Your task to perform on an android device: turn off data saver in the chrome app Image 0: 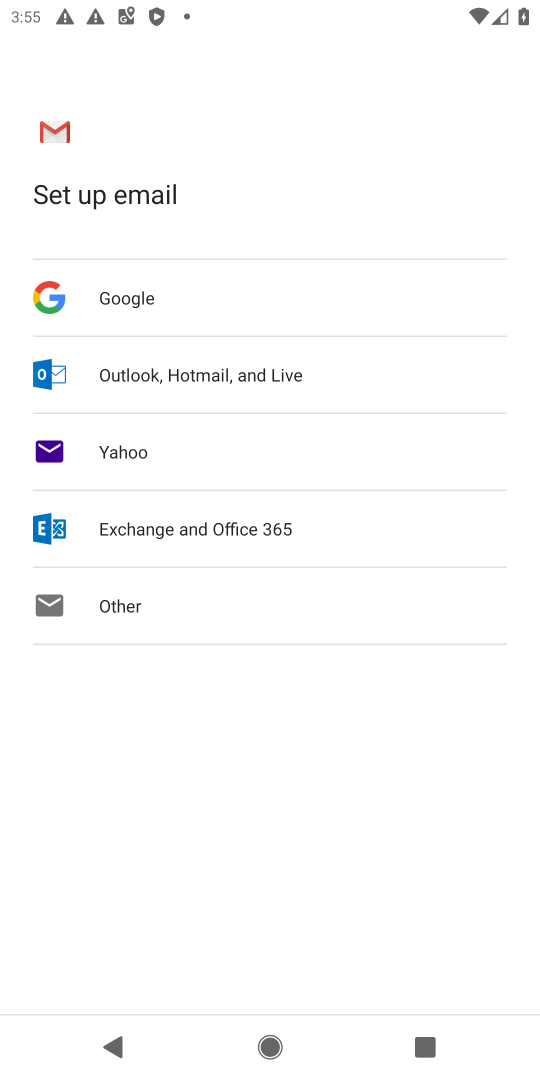
Step 0: press home button
Your task to perform on an android device: turn off data saver in the chrome app Image 1: 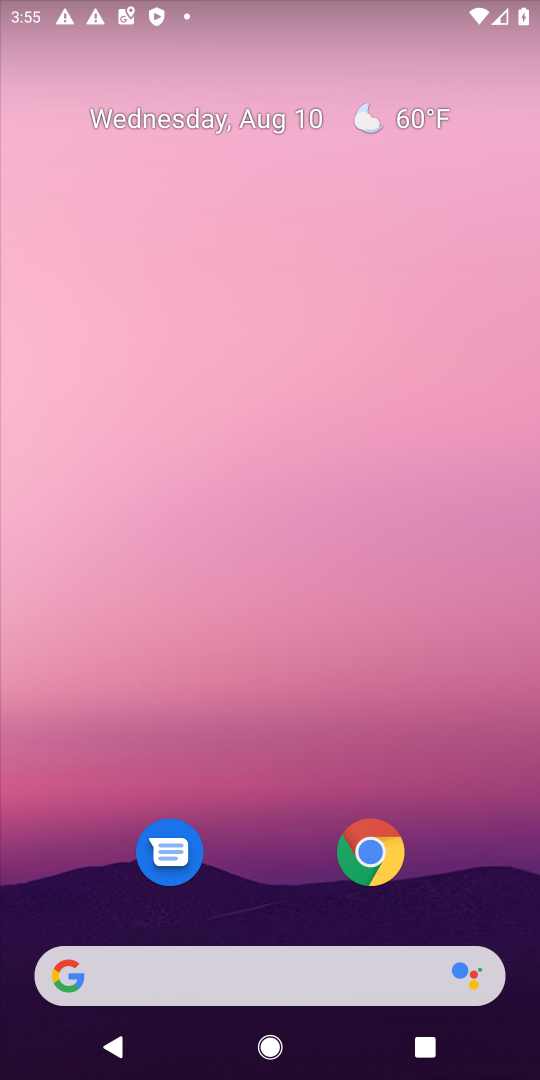
Step 1: drag from (271, 818) to (350, 133)
Your task to perform on an android device: turn off data saver in the chrome app Image 2: 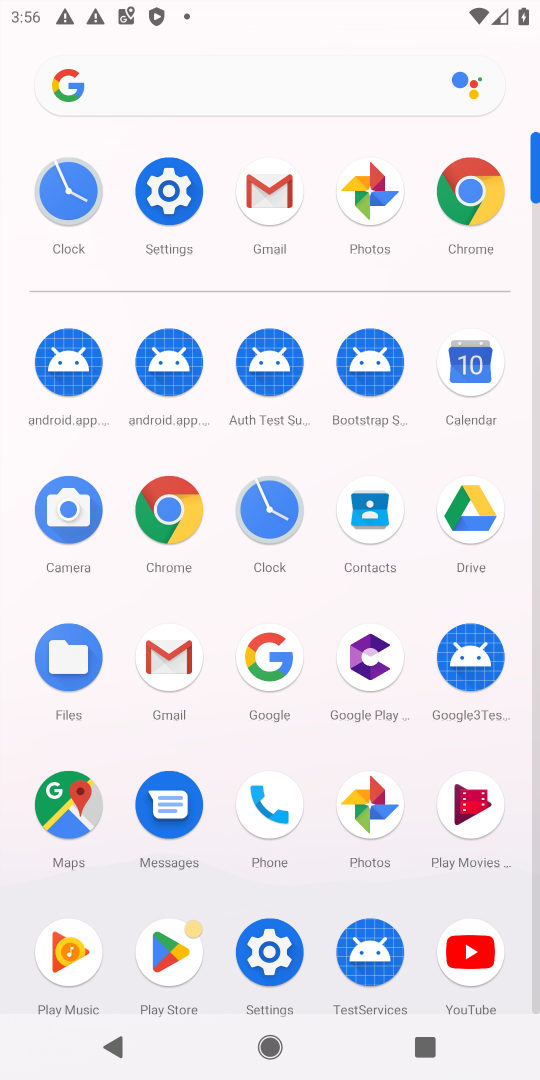
Step 2: click (165, 505)
Your task to perform on an android device: turn off data saver in the chrome app Image 3: 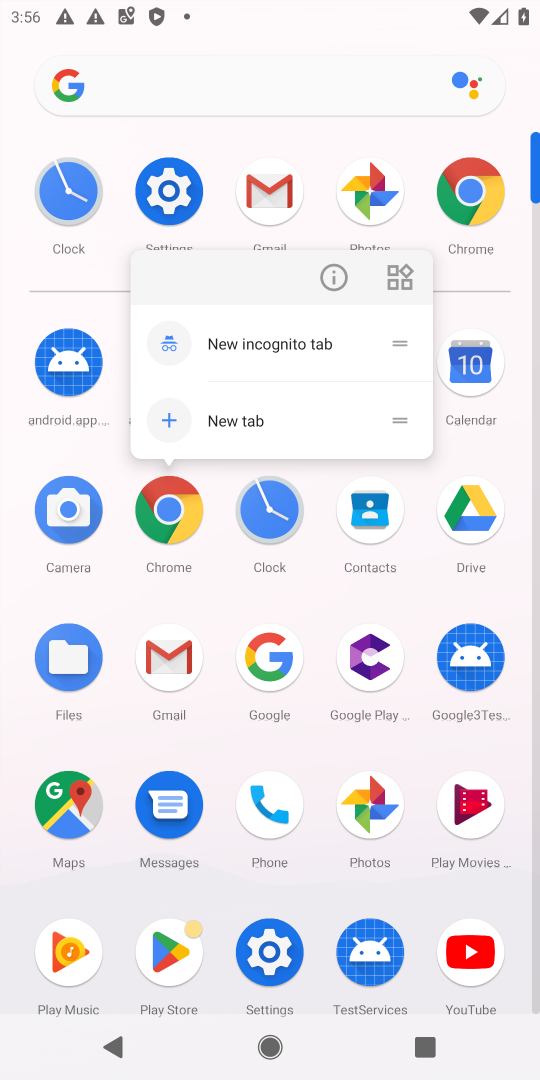
Step 3: click (170, 507)
Your task to perform on an android device: turn off data saver in the chrome app Image 4: 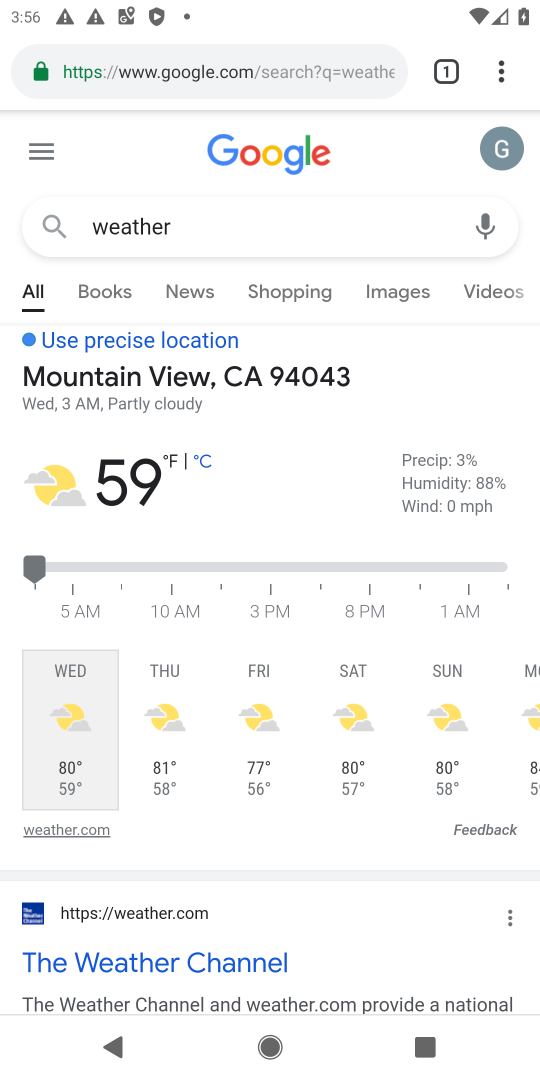
Step 4: drag from (491, 69) to (267, 782)
Your task to perform on an android device: turn off data saver in the chrome app Image 5: 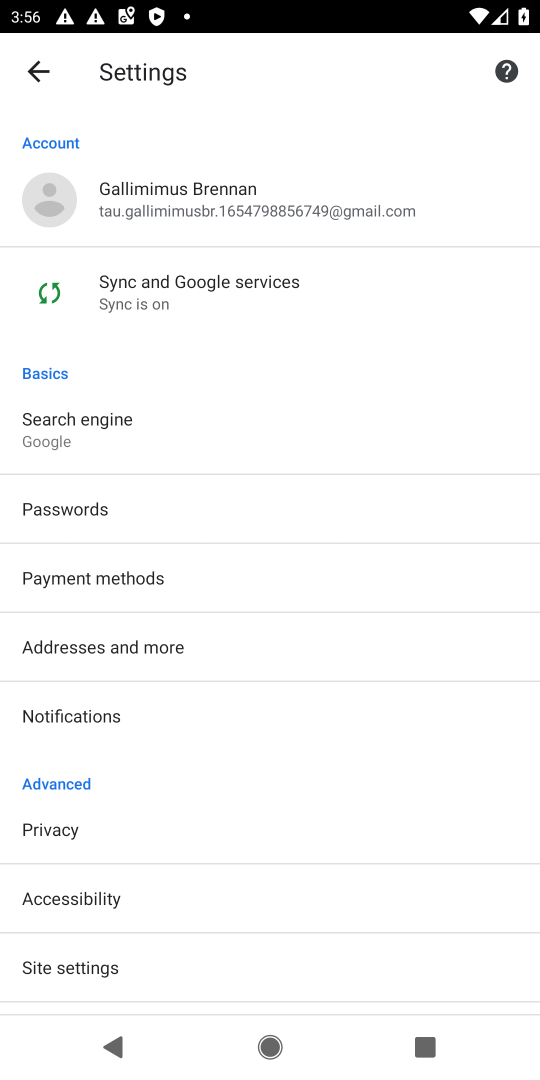
Step 5: drag from (230, 763) to (343, 286)
Your task to perform on an android device: turn off data saver in the chrome app Image 6: 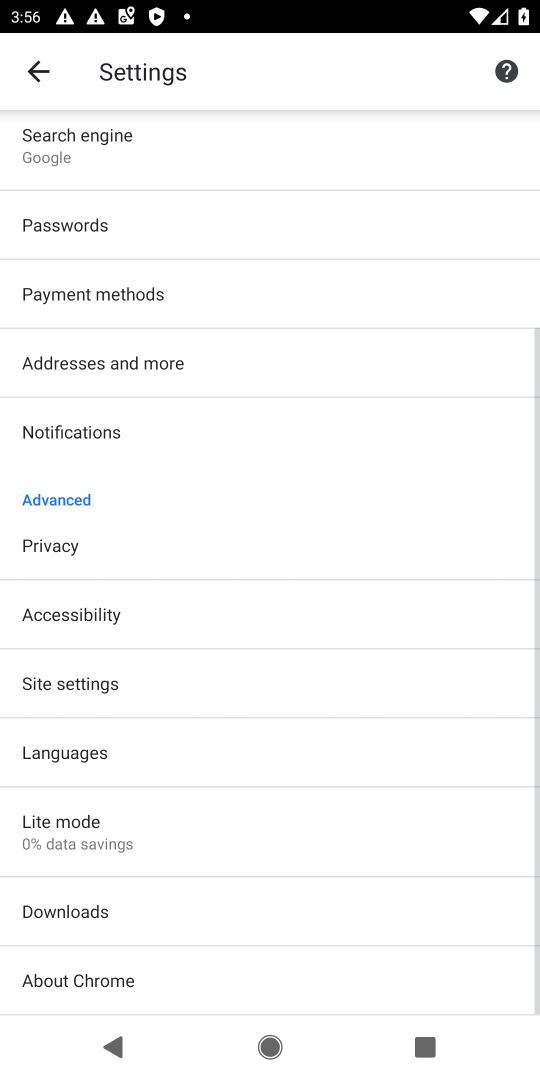
Step 6: click (141, 830)
Your task to perform on an android device: turn off data saver in the chrome app Image 7: 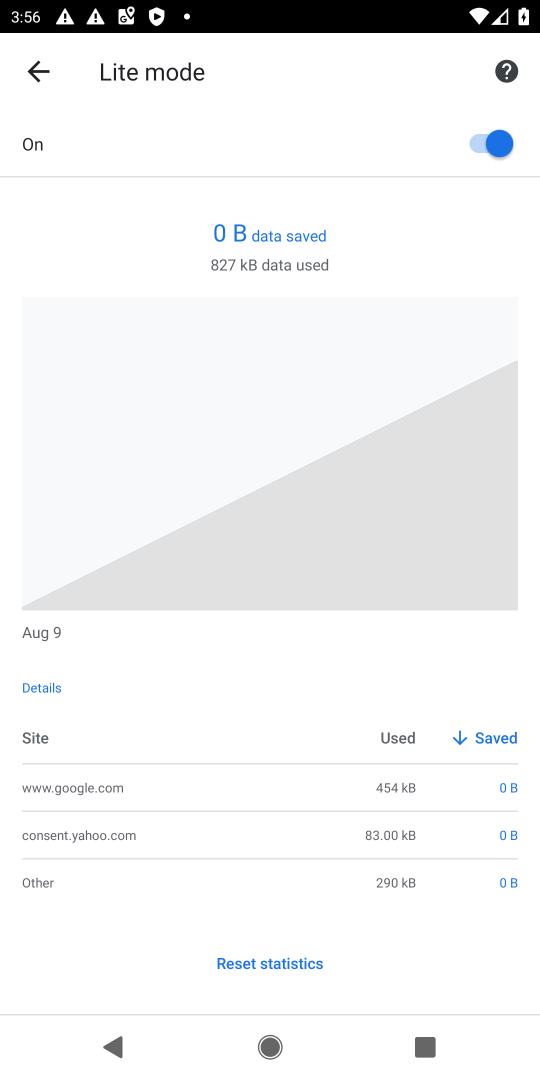
Step 7: click (476, 146)
Your task to perform on an android device: turn off data saver in the chrome app Image 8: 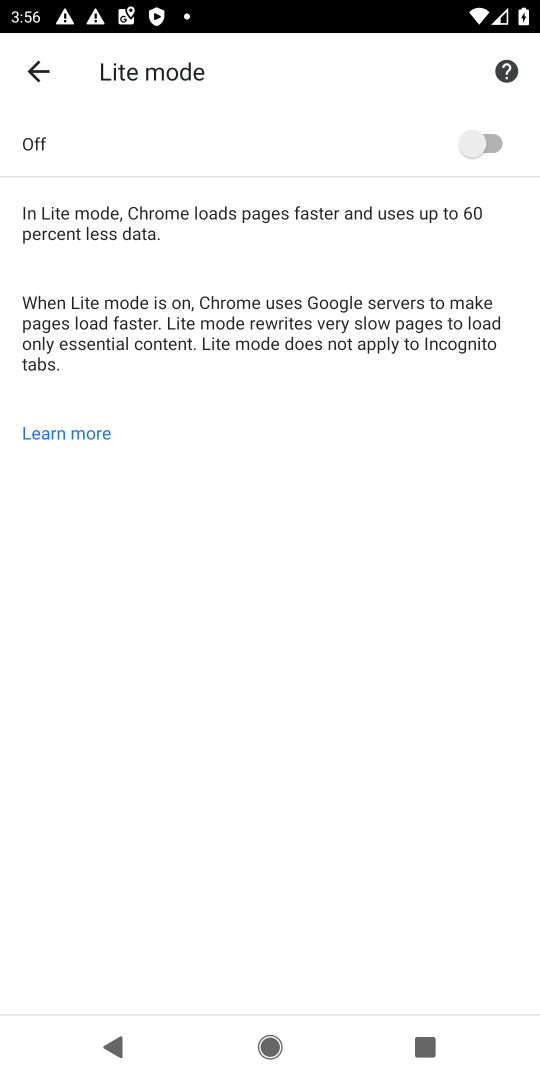
Step 8: task complete